Your task to perform on an android device: Add bose soundlink to the cart on newegg.com Image 0: 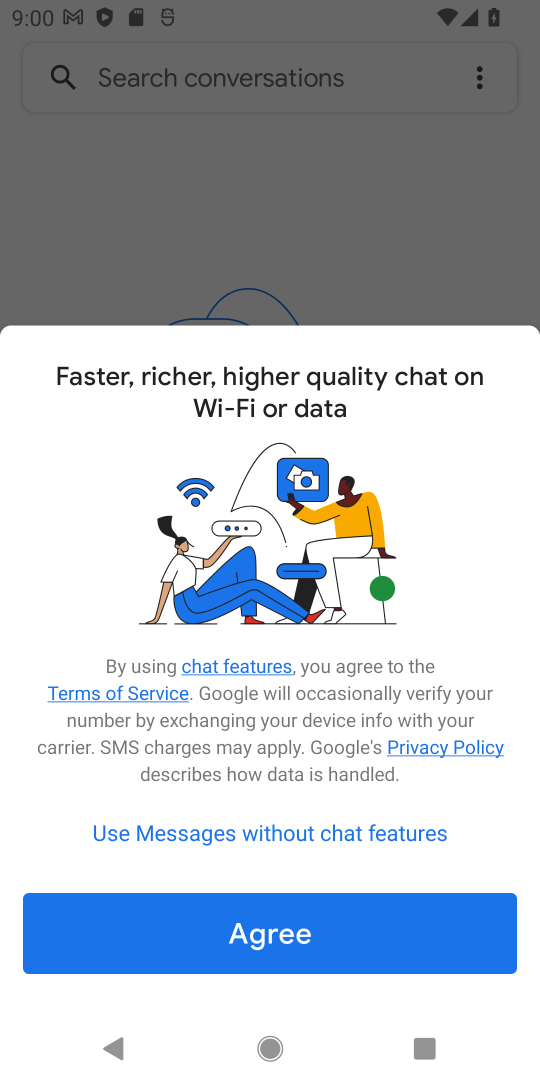
Step 0: press home button
Your task to perform on an android device: Add bose soundlink to the cart on newegg.com Image 1: 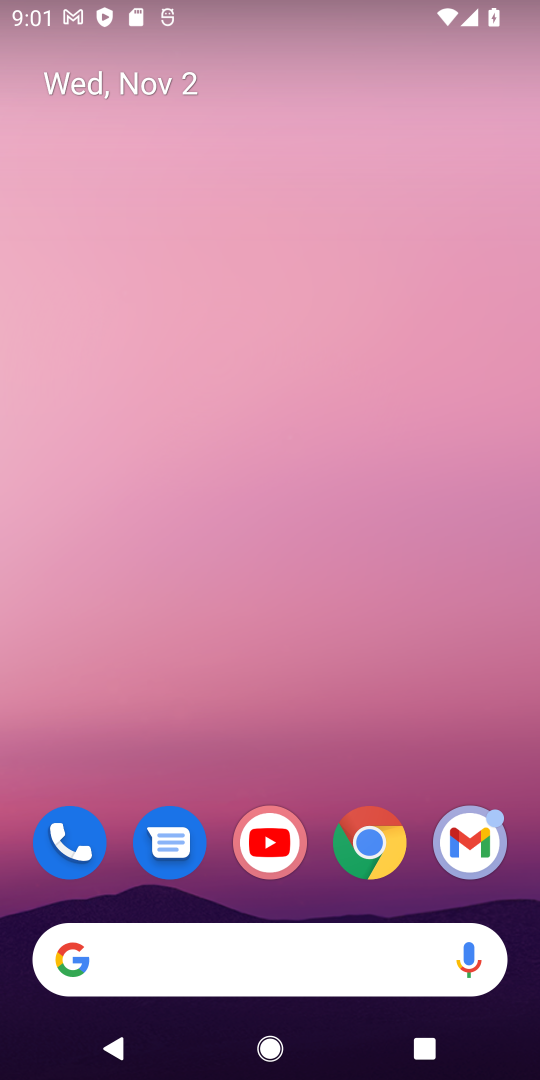
Step 1: drag from (321, 924) to (299, 40)
Your task to perform on an android device: Add bose soundlink to the cart on newegg.com Image 2: 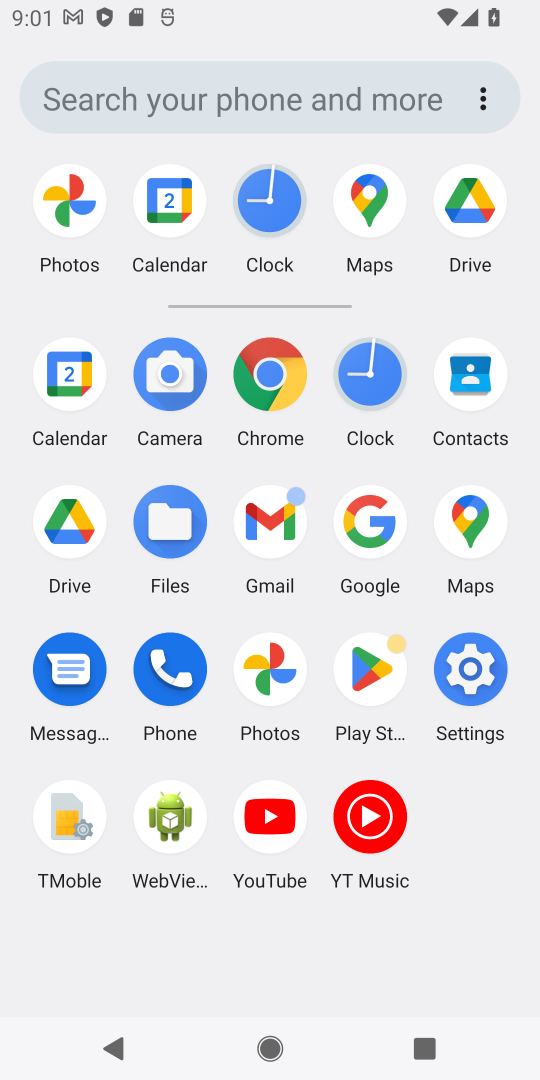
Step 2: click (347, 521)
Your task to perform on an android device: Add bose soundlink to the cart on newegg.com Image 3: 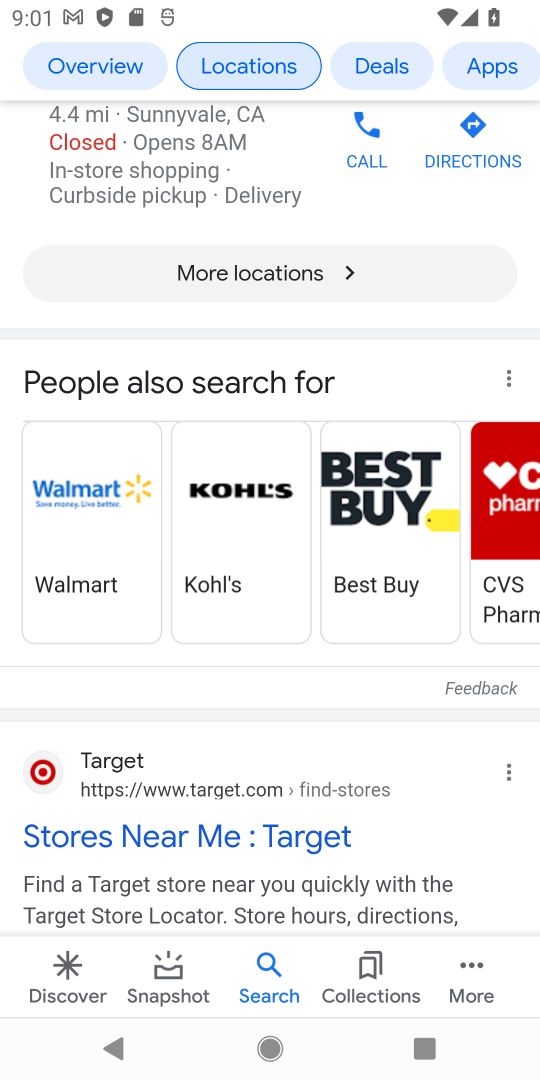
Step 3: drag from (242, 206) to (204, 665)
Your task to perform on an android device: Add bose soundlink to the cart on newegg.com Image 4: 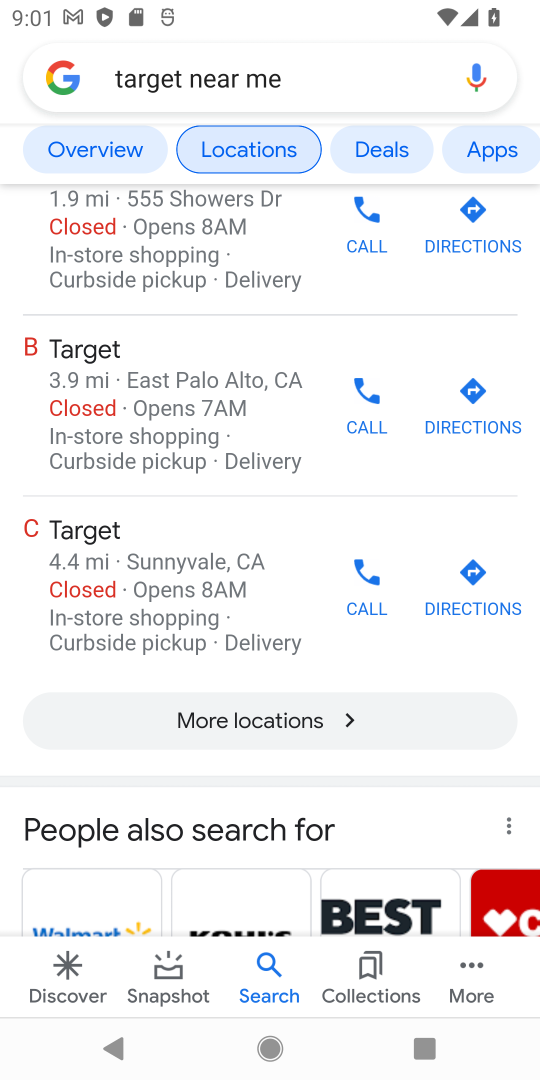
Step 4: click (268, 67)
Your task to perform on an android device: Add bose soundlink to the cart on newegg.com Image 5: 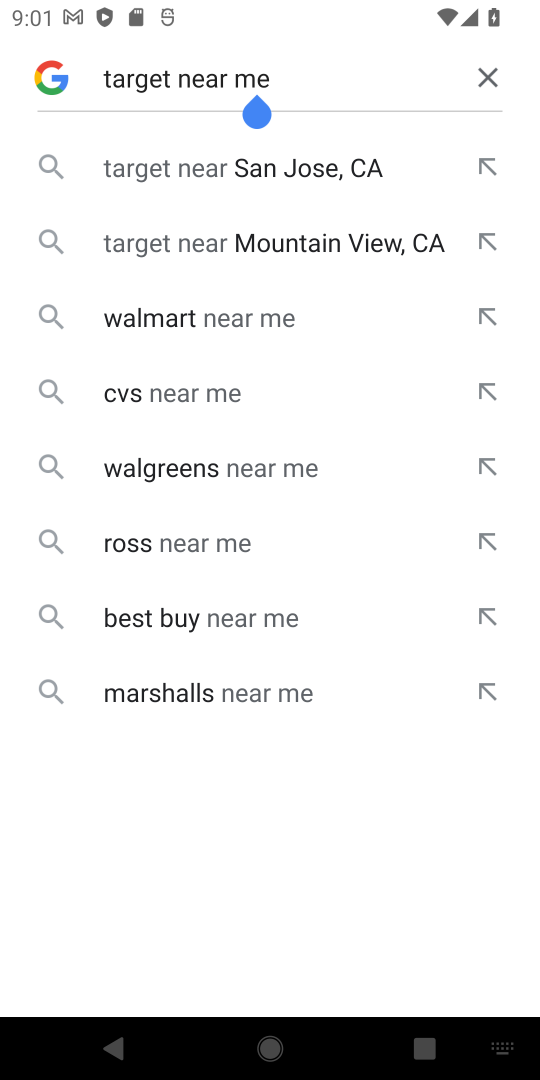
Step 5: click (492, 72)
Your task to perform on an android device: Add bose soundlink to the cart on newegg.com Image 6: 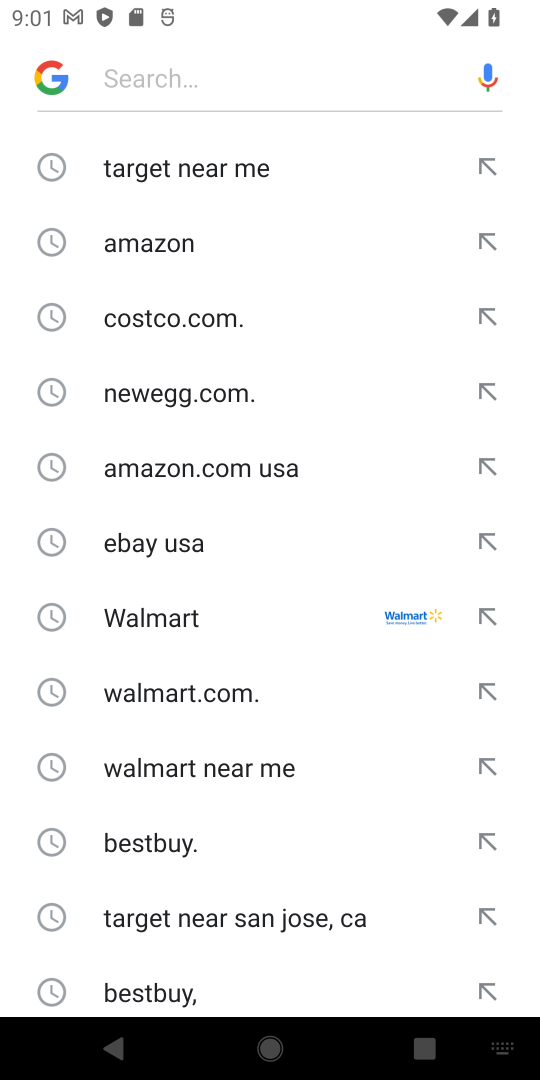
Step 6: click (342, 88)
Your task to perform on an android device: Add bose soundlink to the cart on newegg.com Image 7: 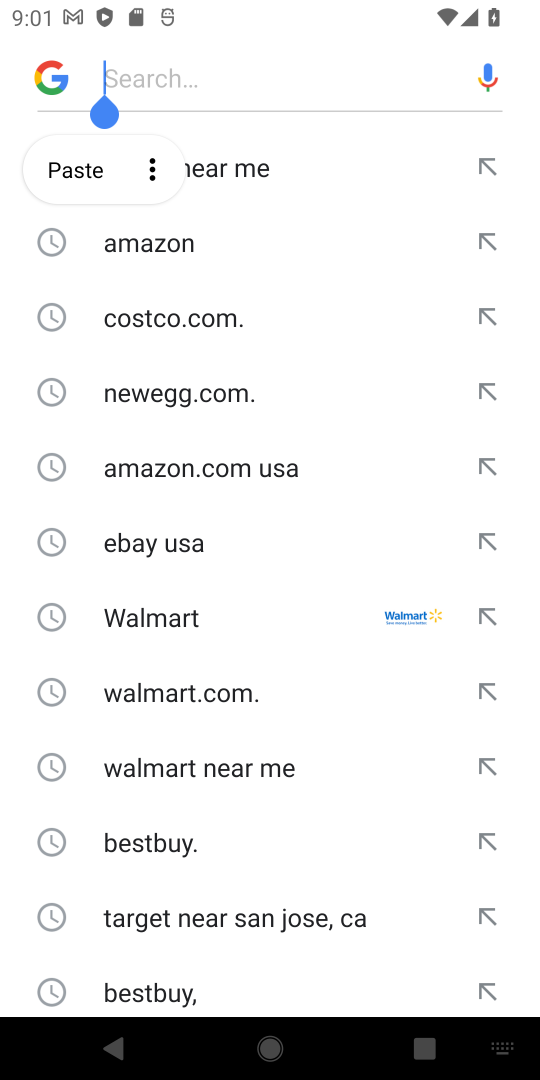
Step 7: type "newegg "
Your task to perform on an android device: Add bose soundlink to the cart on newegg.com Image 8: 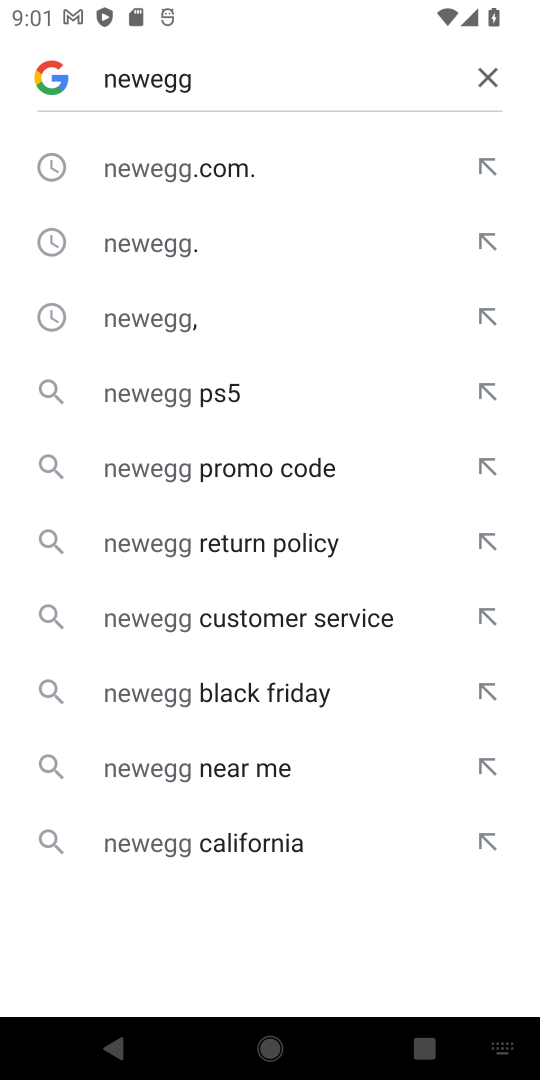
Step 8: click (184, 165)
Your task to perform on an android device: Add bose soundlink to the cart on newegg.com Image 9: 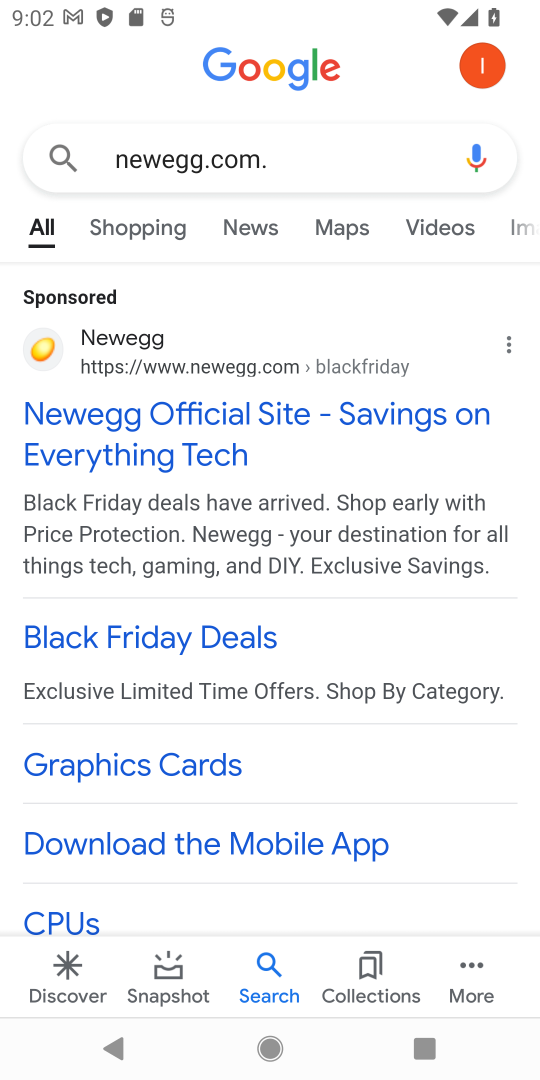
Step 9: click (31, 350)
Your task to perform on an android device: Add bose soundlink to the cart on newegg.com Image 10: 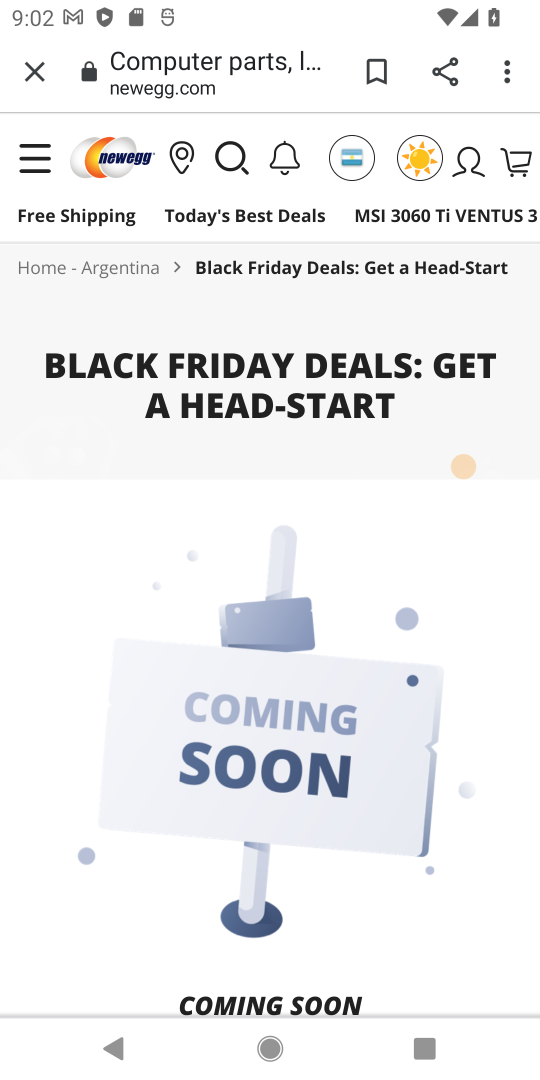
Step 10: click (243, 156)
Your task to perform on an android device: Add bose soundlink to the cart on newegg.com Image 11: 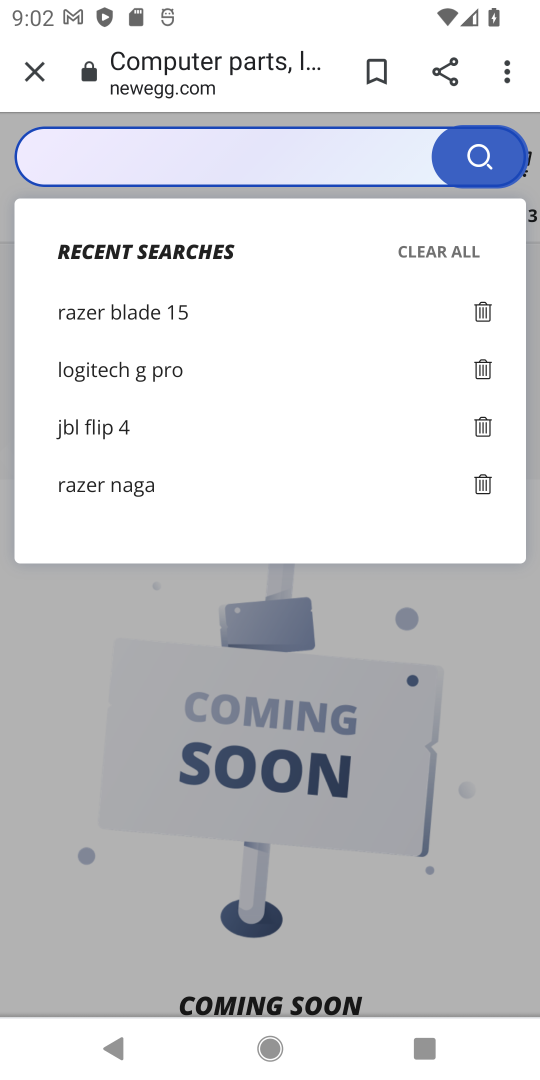
Step 11: click (129, 141)
Your task to perform on an android device: Add bose soundlink to the cart on newegg.com Image 12: 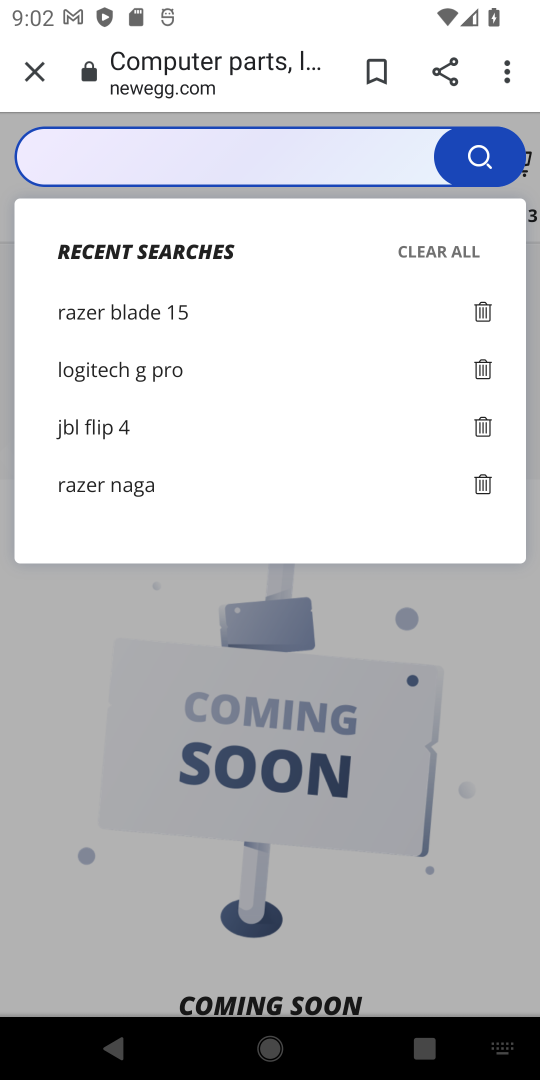
Step 12: type " bose soundlink  "
Your task to perform on an android device: Add bose soundlink to the cart on newegg.com Image 13: 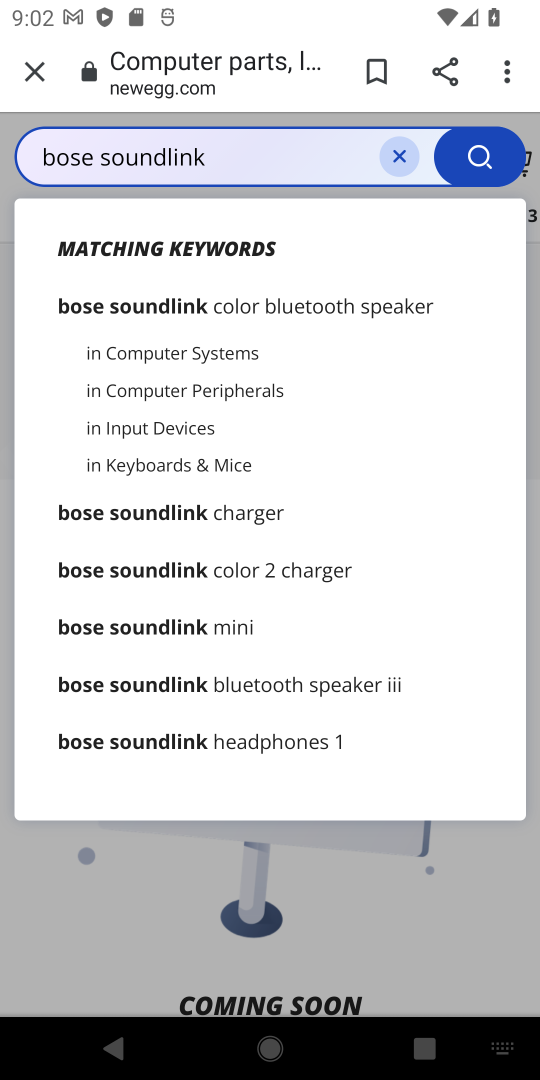
Step 13: click (173, 310)
Your task to perform on an android device: Add bose soundlink to the cart on newegg.com Image 14: 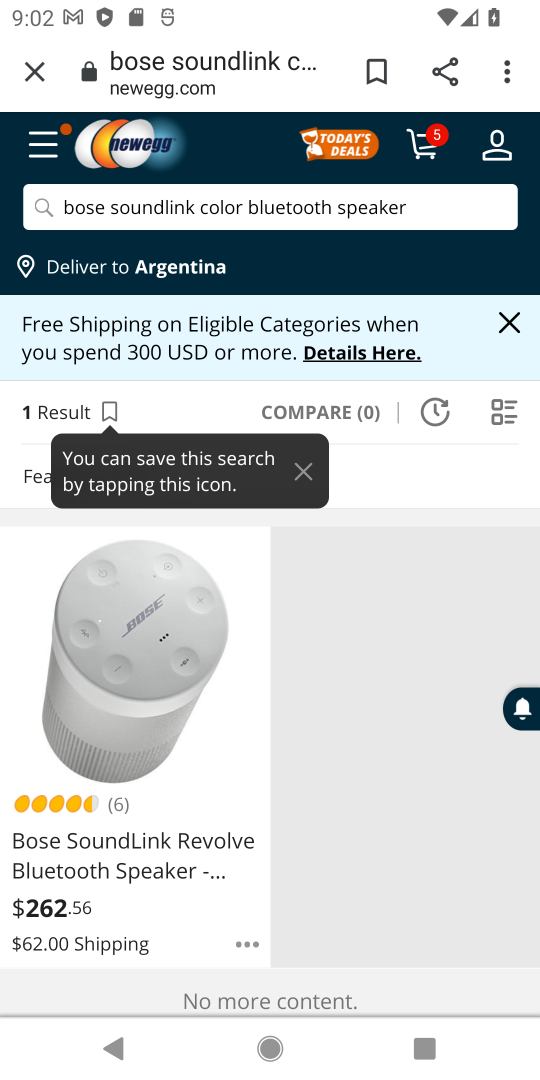
Step 14: drag from (287, 814) to (364, 426)
Your task to perform on an android device: Add bose soundlink to the cart on newegg.com Image 15: 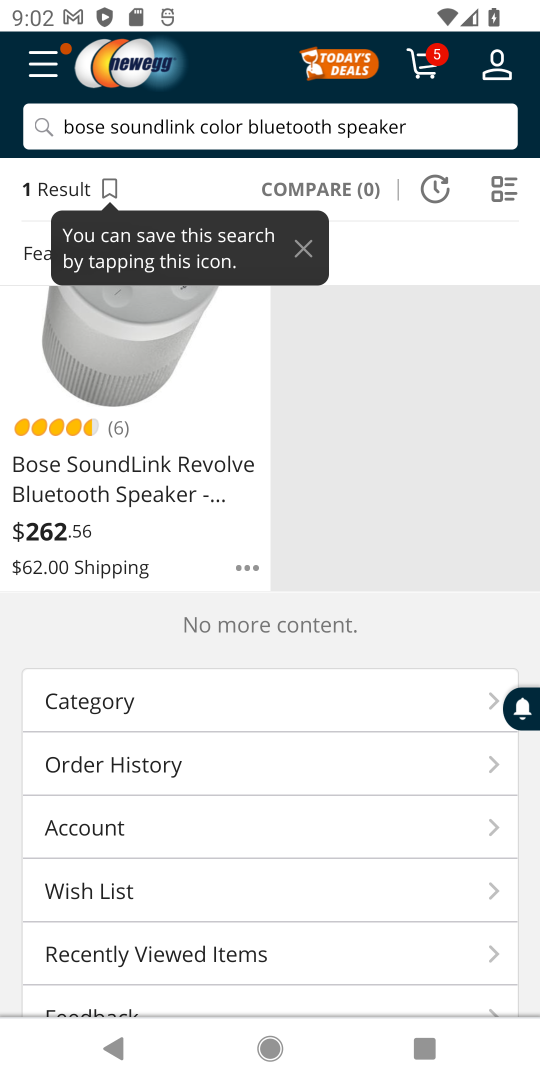
Step 15: click (174, 416)
Your task to perform on an android device: Add bose soundlink to the cart on newegg.com Image 16: 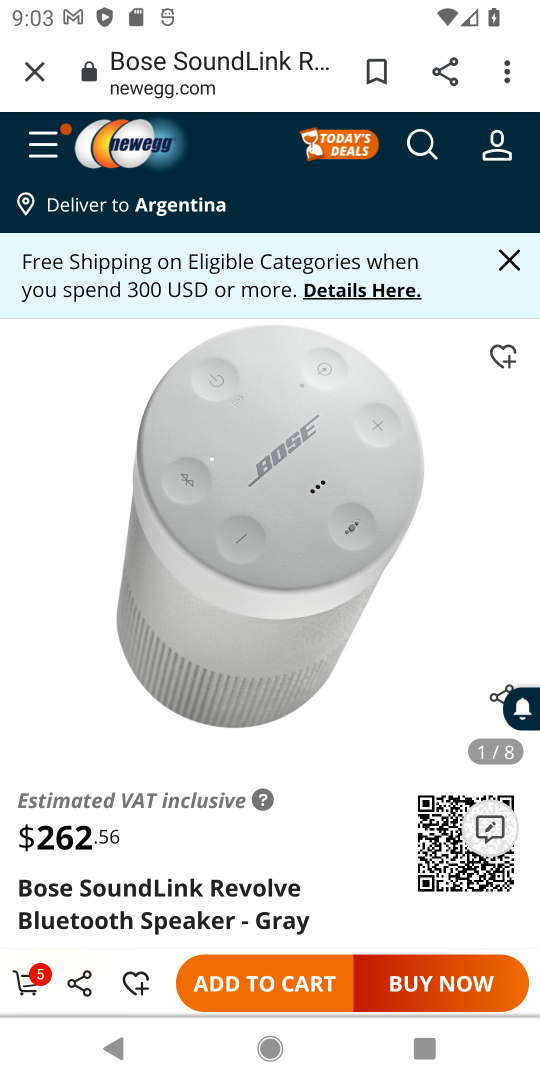
Step 16: click (299, 979)
Your task to perform on an android device: Add bose soundlink to the cart on newegg.com Image 17: 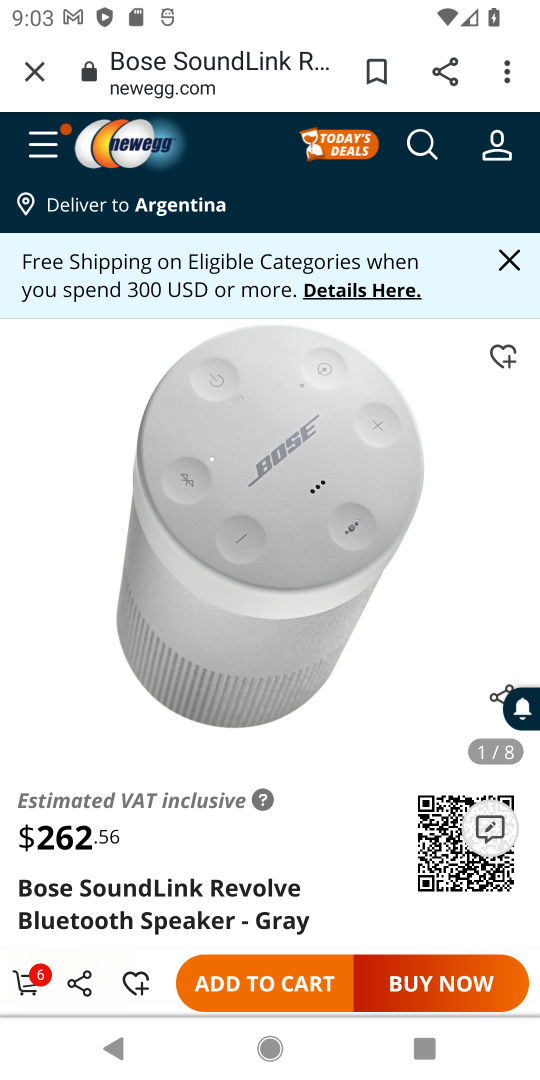
Step 17: task complete